Your task to perform on an android device: Search for a new foundation on Sephora Image 0: 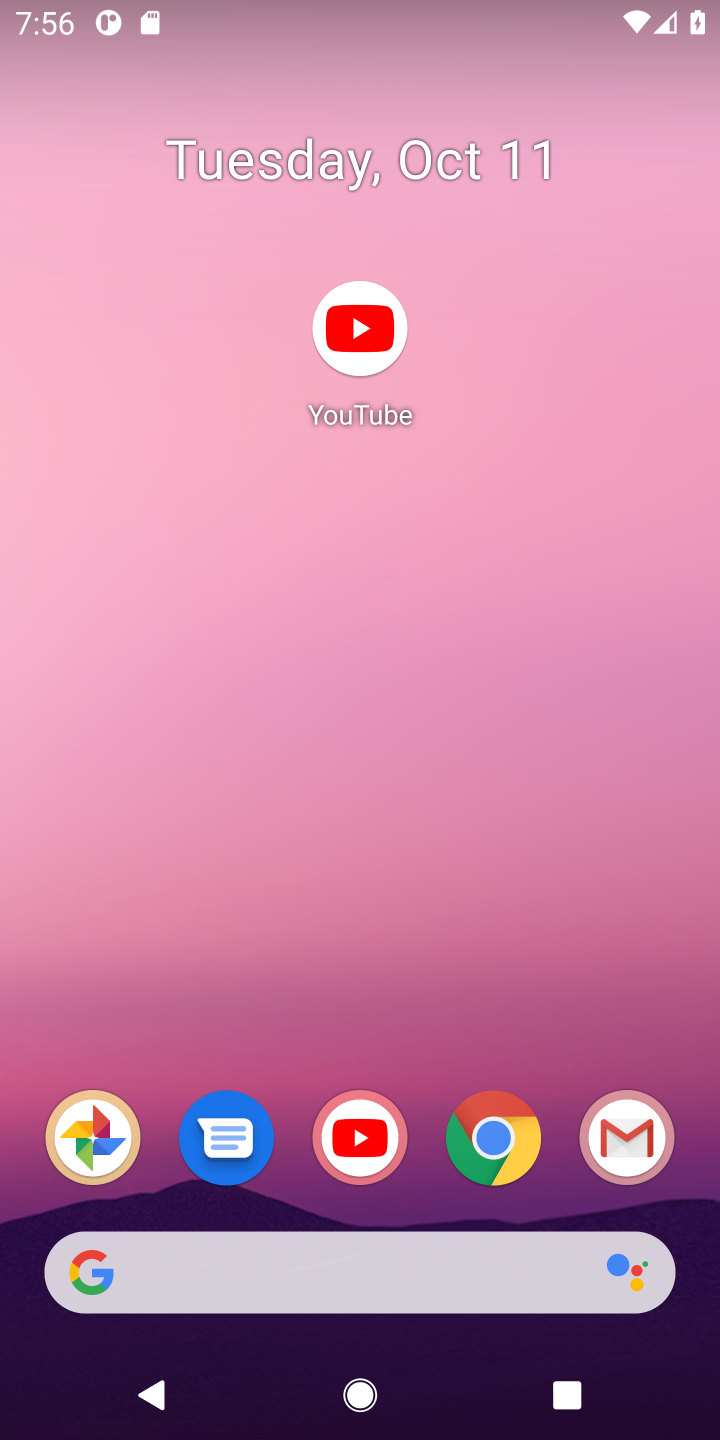
Step 0: click (297, 1265)
Your task to perform on an android device: Search for a new foundation on Sephora Image 1: 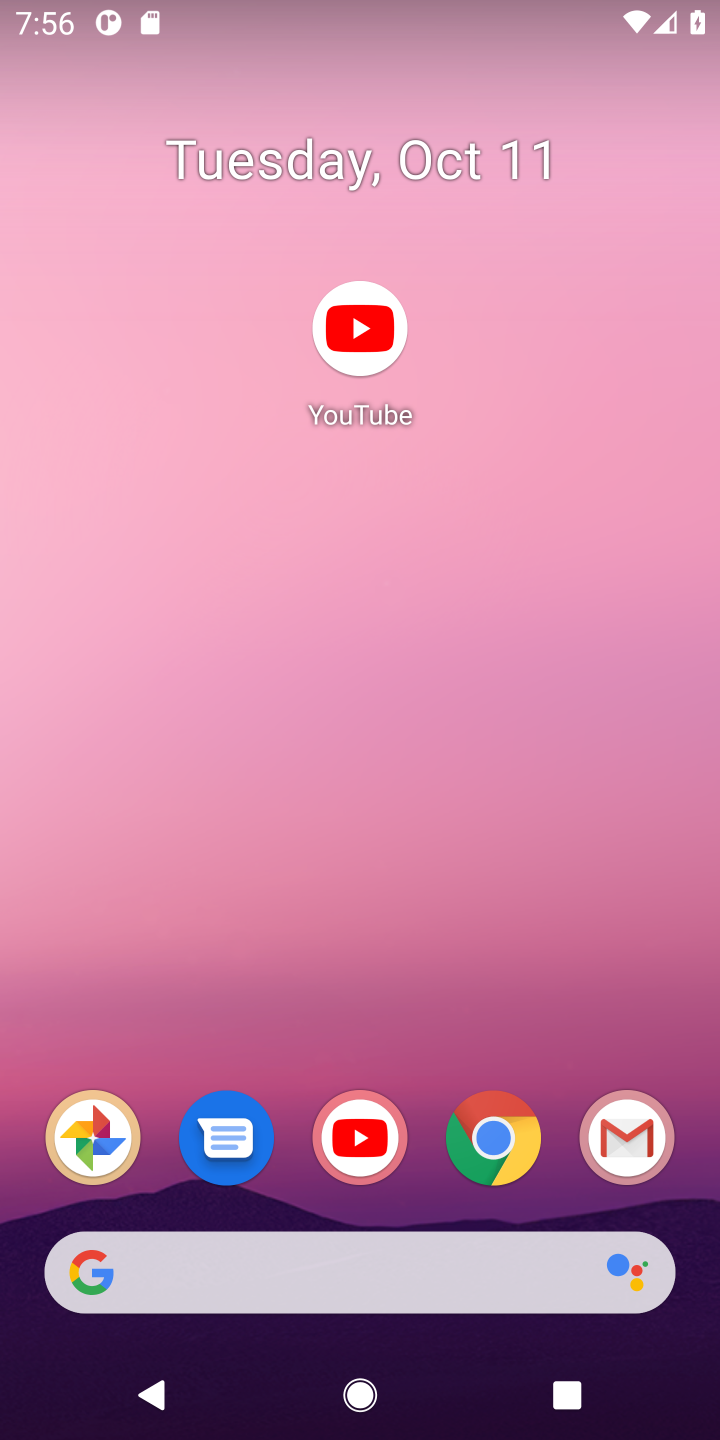
Step 1: click (297, 1265)
Your task to perform on an android device: Search for a new foundation on Sephora Image 2: 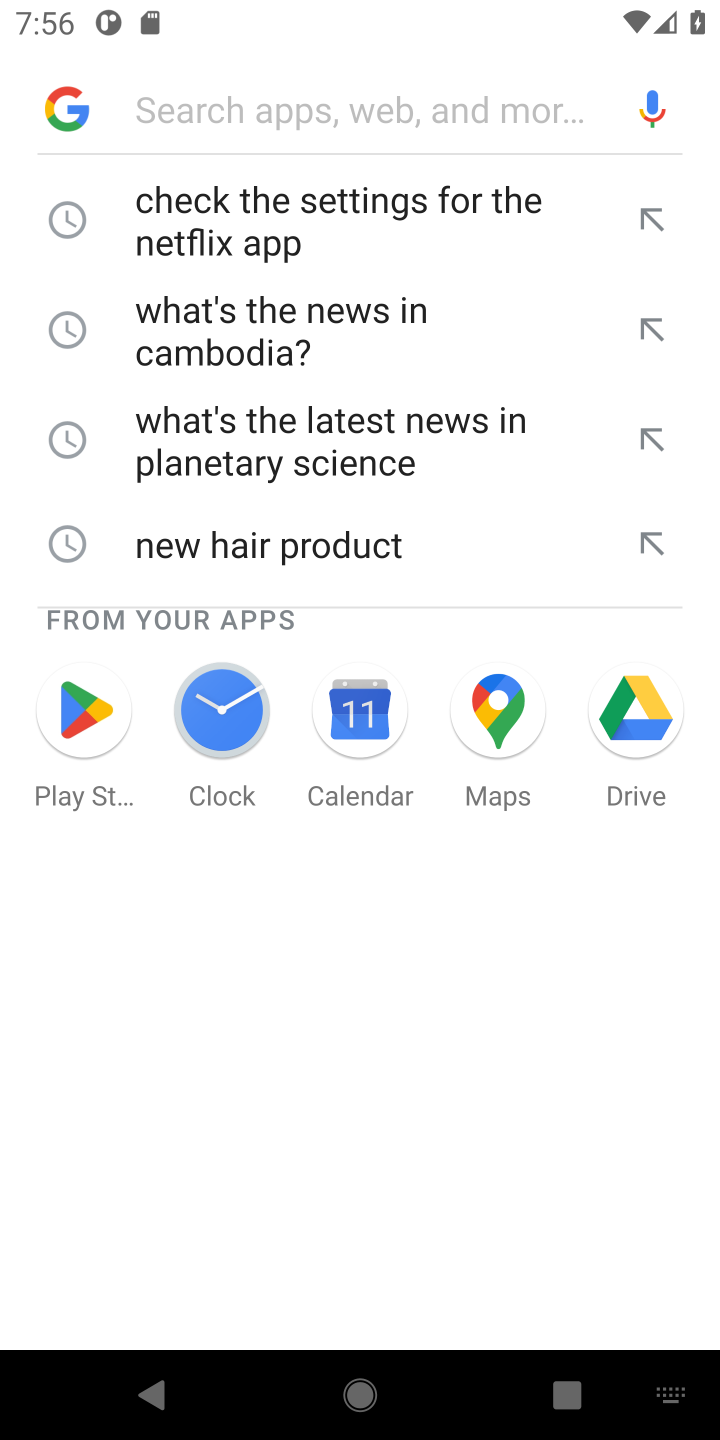
Step 2: type "Search for a new foundation on Sephora"
Your task to perform on an android device: Search for a new foundation on Sephora Image 3: 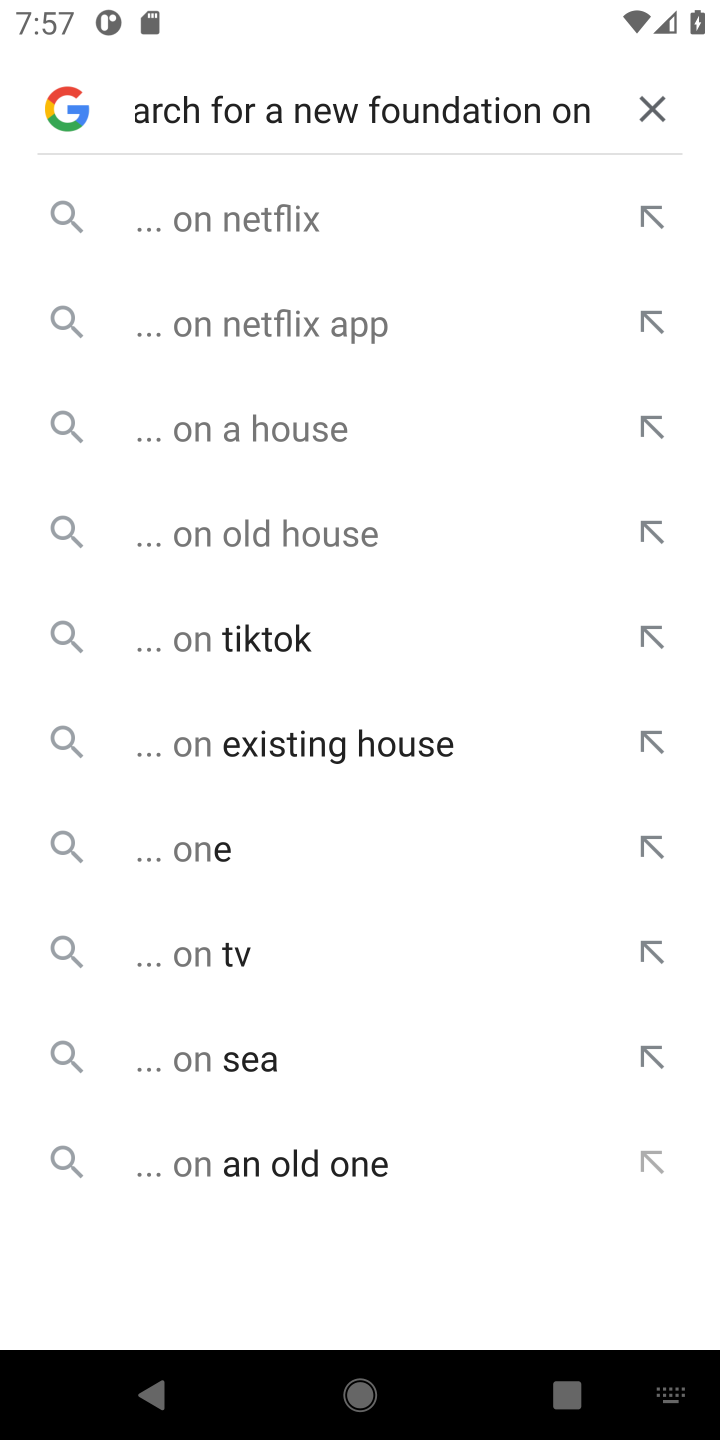
Step 3: click (252, 439)
Your task to perform on an android device: Search for a new foundation on Sephora Image 4: 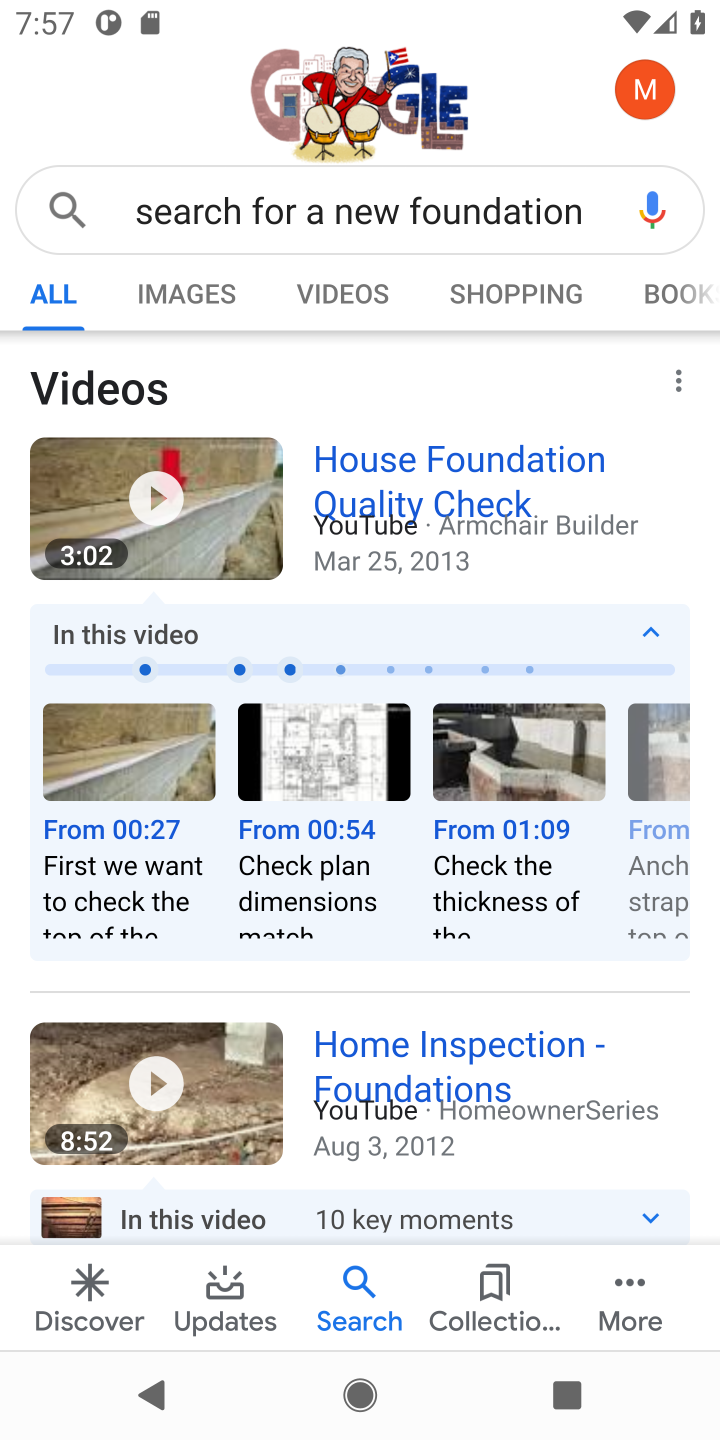
Step 4: task complete